Your task to perform on an android device: Open Chrome and go to settings Image 0: 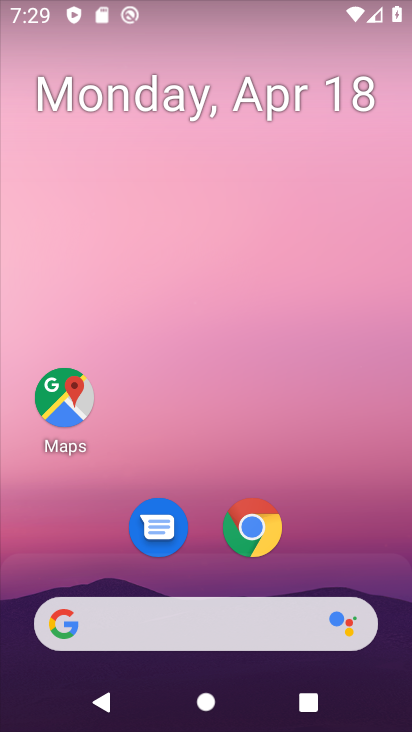
Step 0: drag from (235, 593) to (315, 325)
Your task to perform on an android device: Open Chrome and go to settings Image 1: 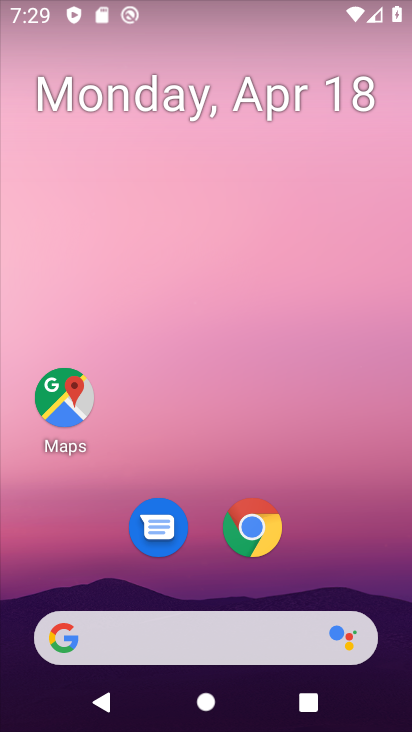
Step 1: drag from (246, 491) to (286, 225)
Your task to perform on an android device: Open Chrome and go to settings Image 2: 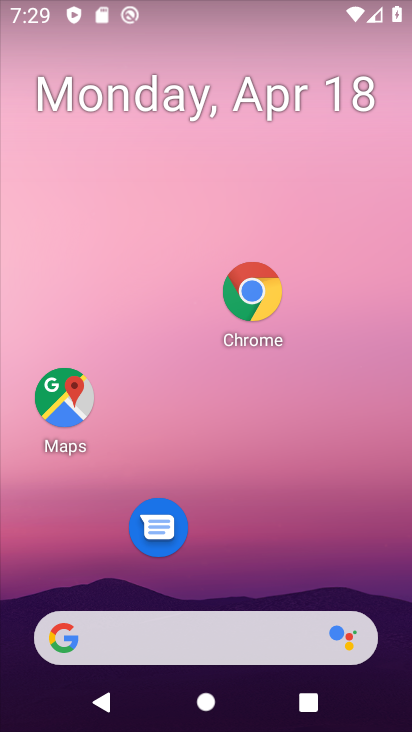
Step 2: drag from (224, 501) to (292, 135)
Your task to perform on an android device: Open Chrome and go to settings Image 3: 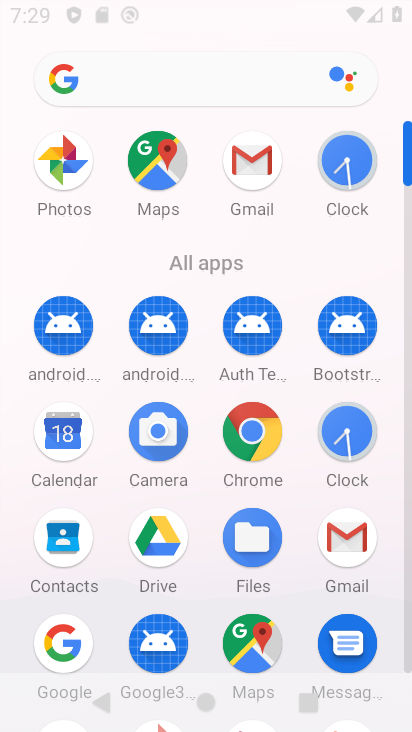
Step 3: click (317, 117)
Your task to perform on an android device: Open Chrome and go to settings Image 4: 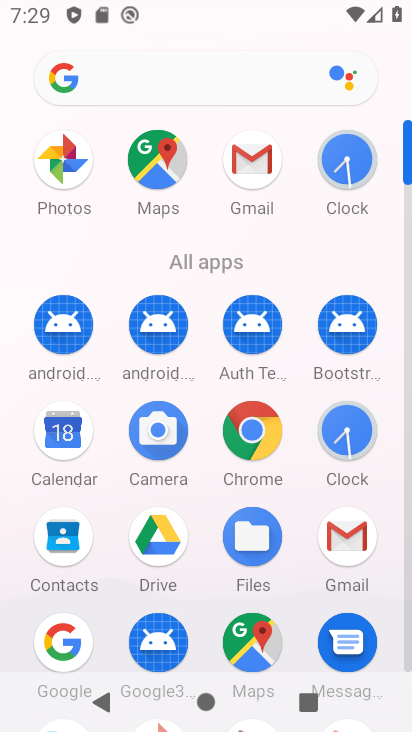
Step 4: click (243, 431)
Your task to perform on an android device: Open Chrome and go to settings Image 5: 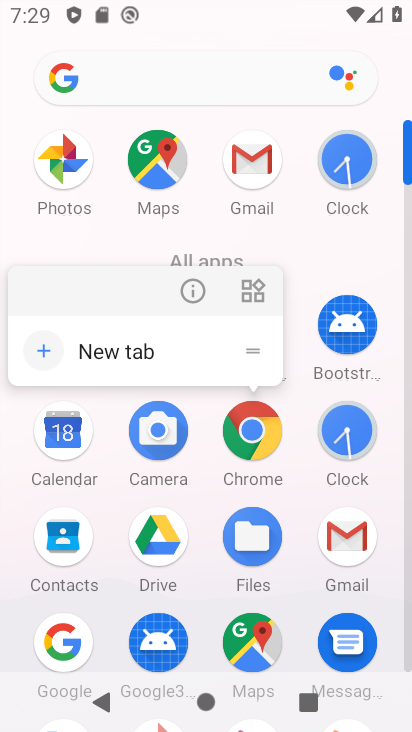
Step 5: click (243, 429)
Your task to perform on an android device: Open Chrome and go to settings Image 6: 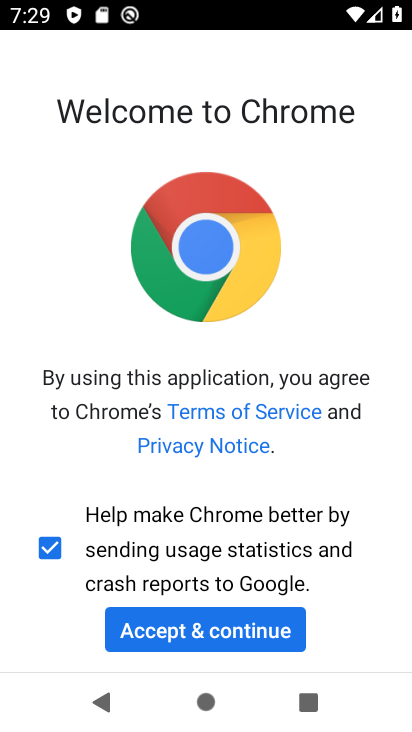
Step 6: click (228, 623)
Your task to perform on an android device: Open Chrome and go to settings Image 7: 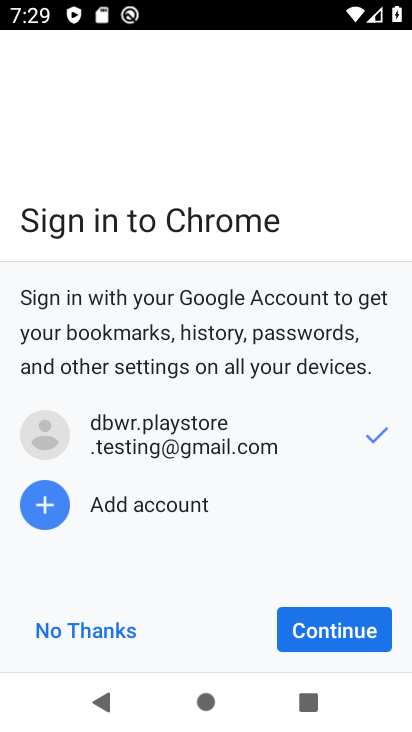
Step 7: click (322, 604)
Your task to perform on an android device: Open Chrome and go to settings Image 8: 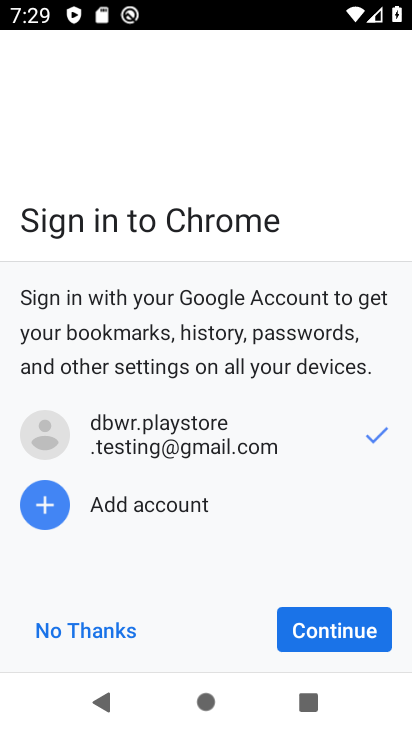
Step 8: click (335, 637)
Your task to perform on an android device: Open Chrome and go to settings Image 9: 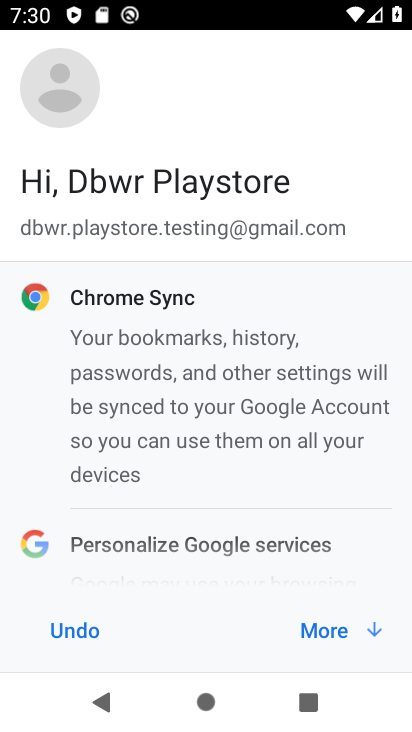
Step 9: click (336, 621)
Your task to perform on an android device: Open Chrome and go to settings Image 10: 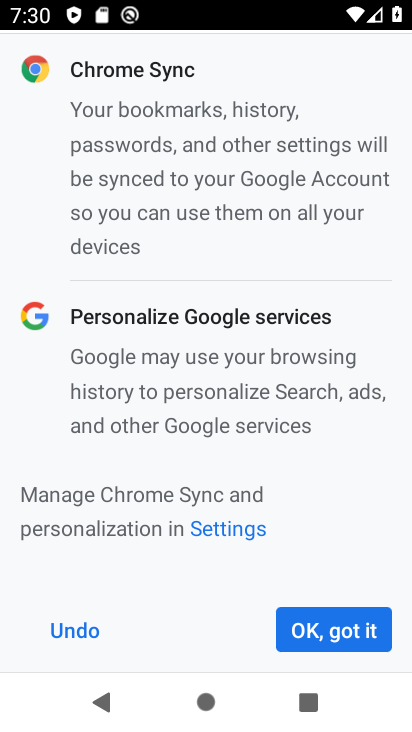
Step 10: click (336, 621)
Your task to perform on an android device: Open Chrome and go to settings Image 11: 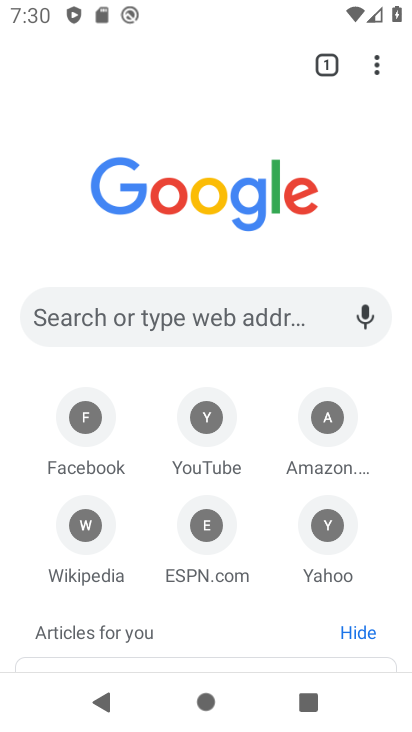
Step 11: click (376, 60)
Your task to perform on an android device: Open Chrome and go to settings Image 12: 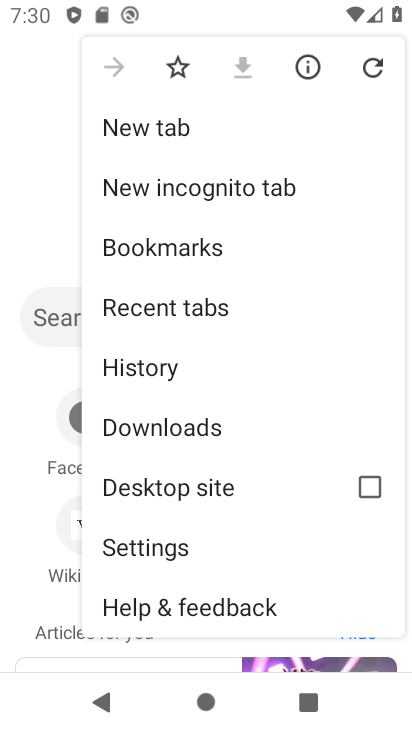
Step 12: click (161, 543)
Your task to perform on an android device: Open Chrome and go to settings Image 13: 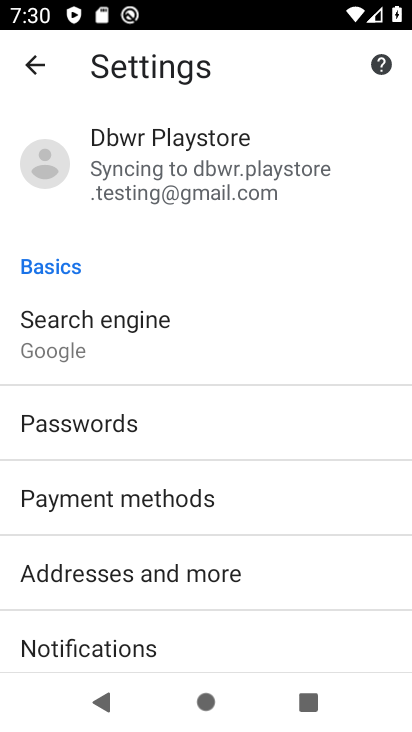
Step 13: task complete